Your task to perform on an android device: Open settings on Google Maps Image 0: 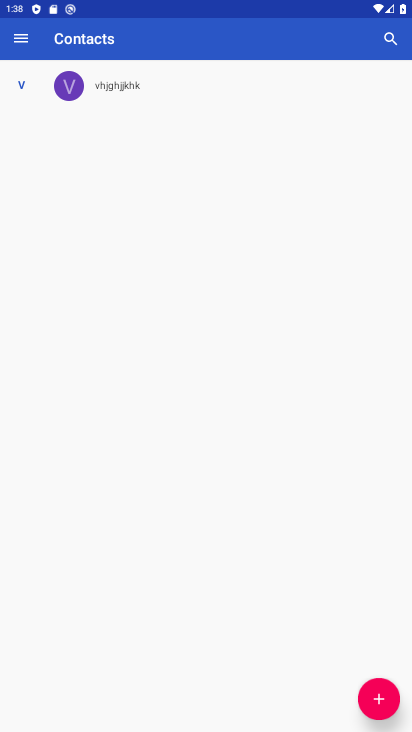
Step 0: press home button
Your task to perform on an android device: Open settings on Google Maps Image 1: 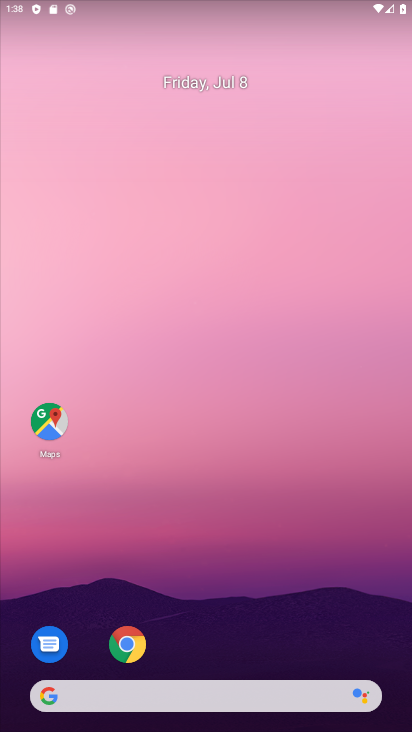
Step 1: drag from (200, 645) to (202, 152)
Your task to perform on an android device: Open settings on Google Maps Image 2: 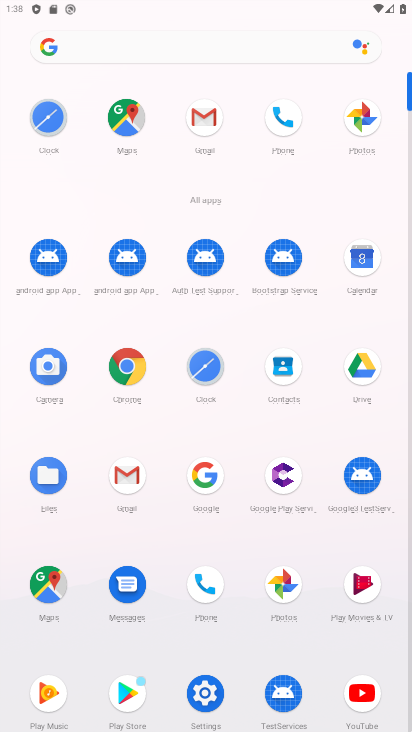
Step 2: click (47, 584)
Your task to perform on an android device: Open settings on Google Maps Image 3: 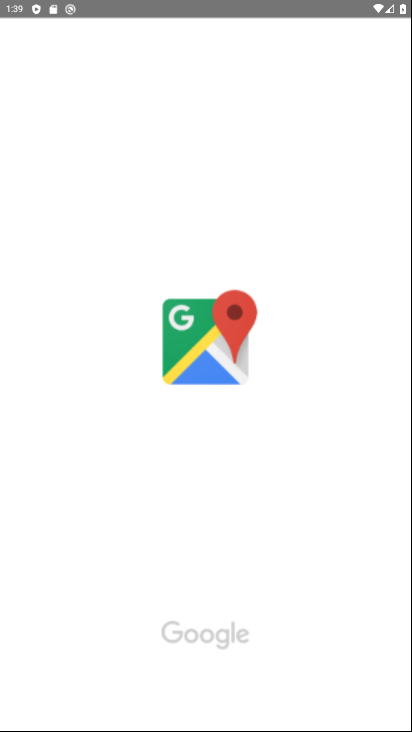
Step 3: task complete